Your task to perform on an android device: check data usage Image 0: 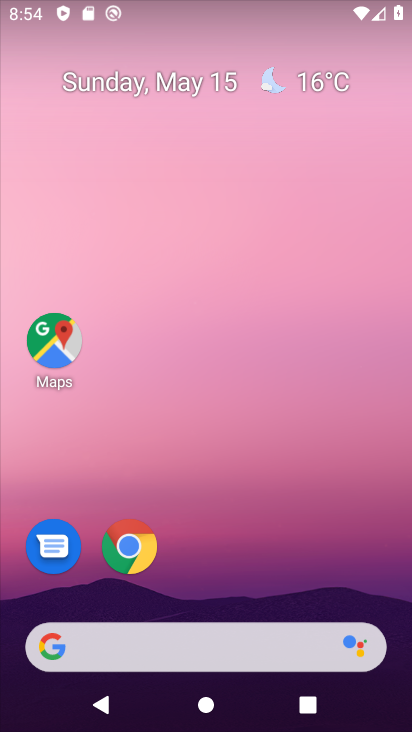
Step 0: drag from (203, 587) to (283, 107)
Your task to perform on an android device: check data usage Image 1: 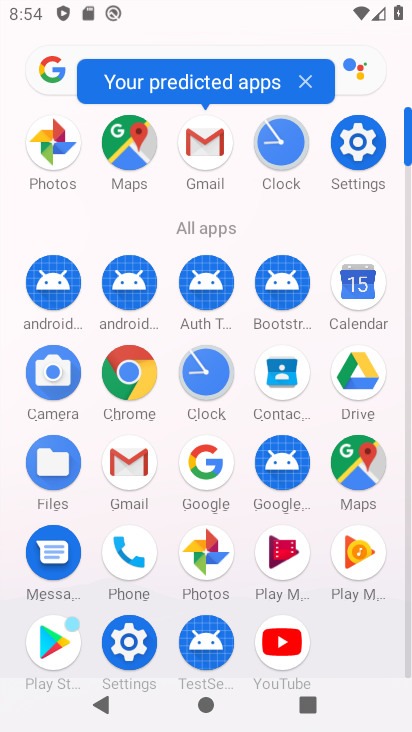
Step 1: drag from (155, 558) to (190, 386)
Your task to perform on an android device: check data usage Image 2: 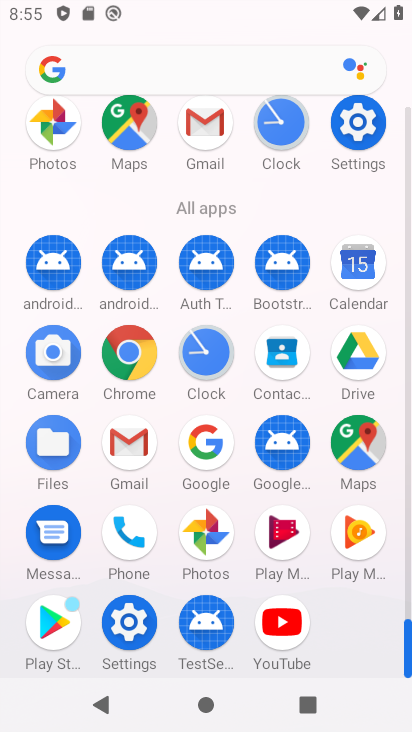
Step 2: click (127, 632)
Your task to perform on an android device: check data usage Image 3: 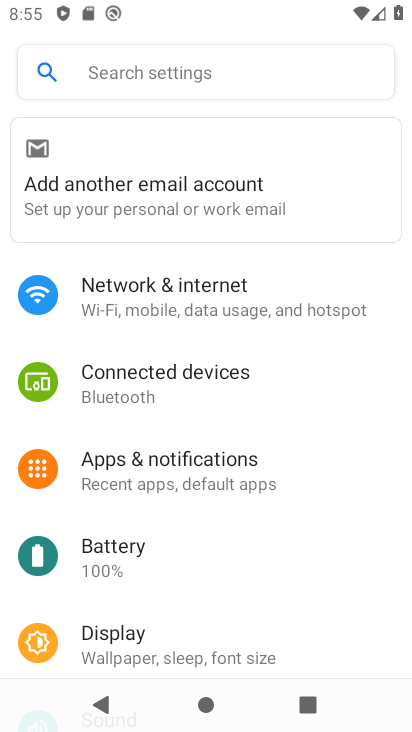
Step 3: click (224, 303)
Your task to perform on an android device: check data usage Image 4: 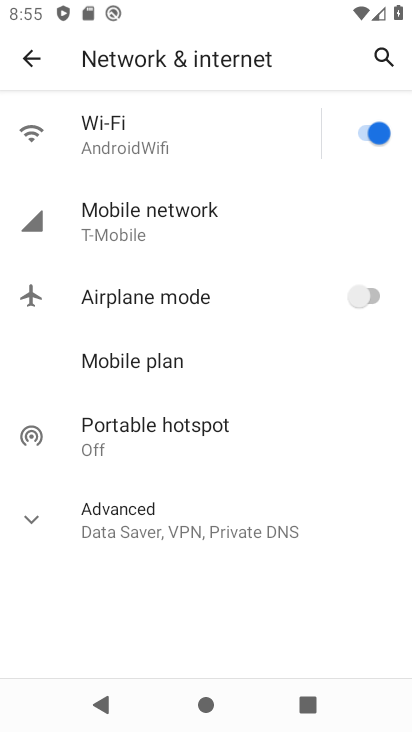
Step 4: click (192, 242)
Your task to perform on an android device: check data usage Image 5: 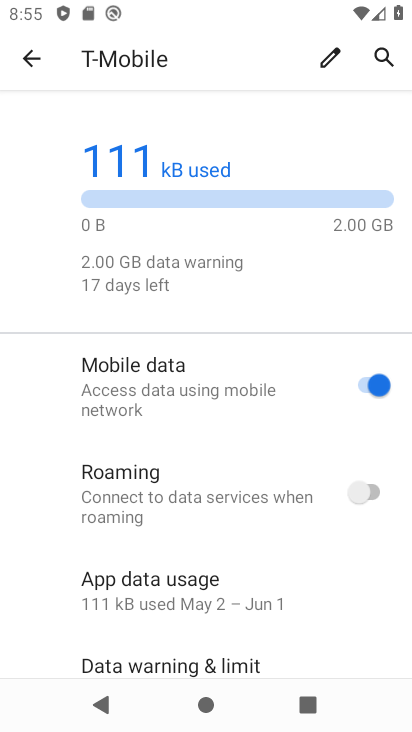
Step 5: click (193, 598)
Your task to perform on an android device: check data usage Image 6: 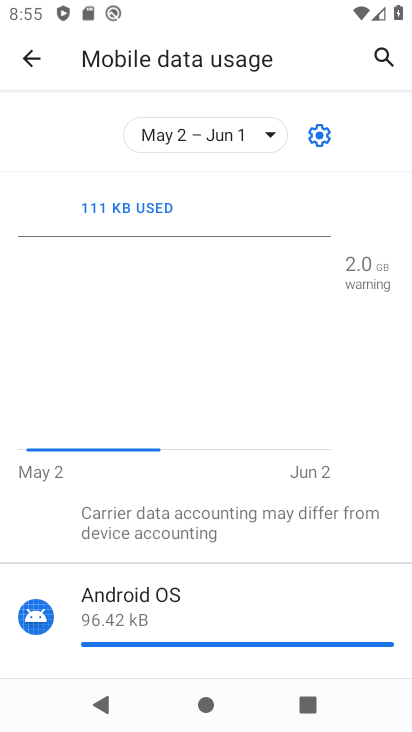
Step 6: task complete